Your task to perform on an android device: stop showing notifications on the lock screen Image 0: 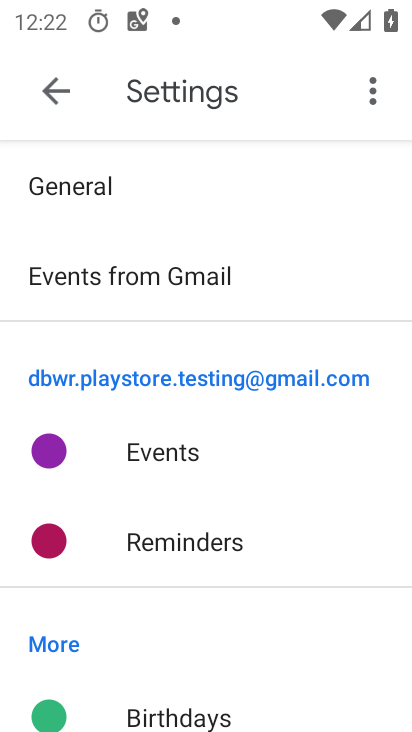
Step 0: press home button
Your task to perform on an android device: stop showing notifications on the lock screen Image 1: 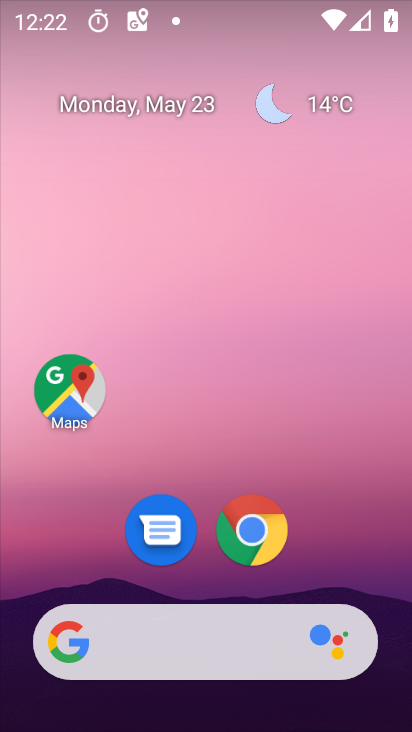
Step 1: drag from (404, 652) to (411, 260)
Your task to perform on an android device: stop showing notifications on the lock screen Image 2: 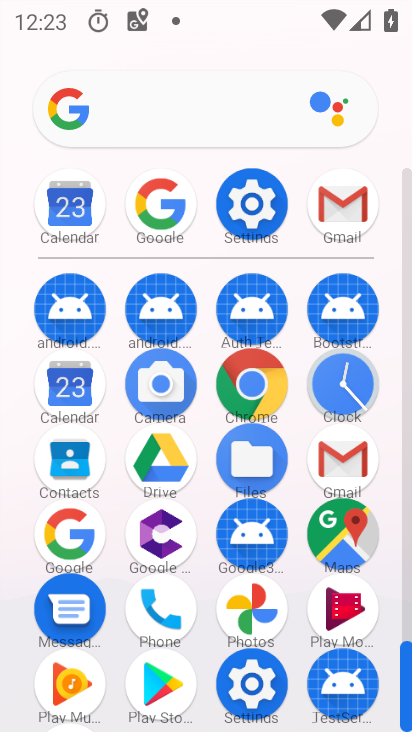
Step 2: click (242, 695)
Your task to perform on an android device: stop showing notifications on the lock screen Image 3: 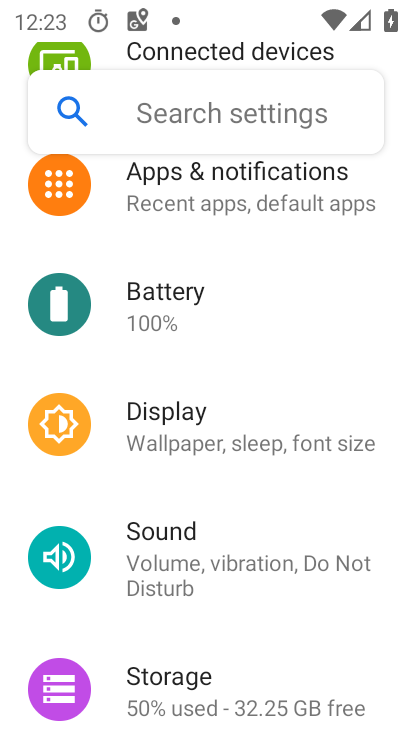
Step 3: drag from (292, 705) to (320, 343)
Your task to perform on an android device: stop showing notifications on the lock screen Image 4: 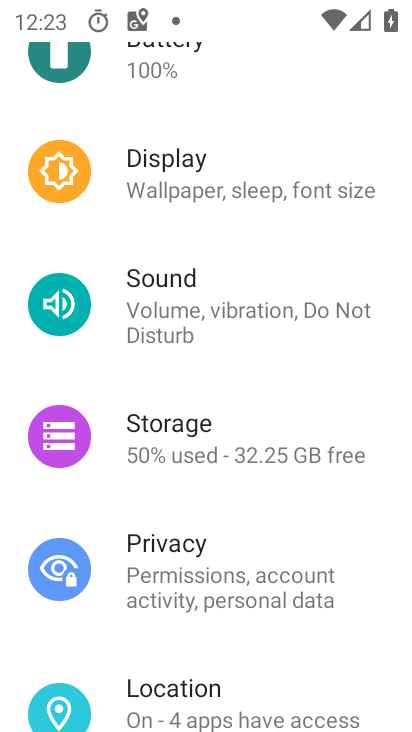
Step 4: drag from (286, 150) to (246, 411)
Your task to perform on an android device: stop showing notifications on the lock screen Image 5: 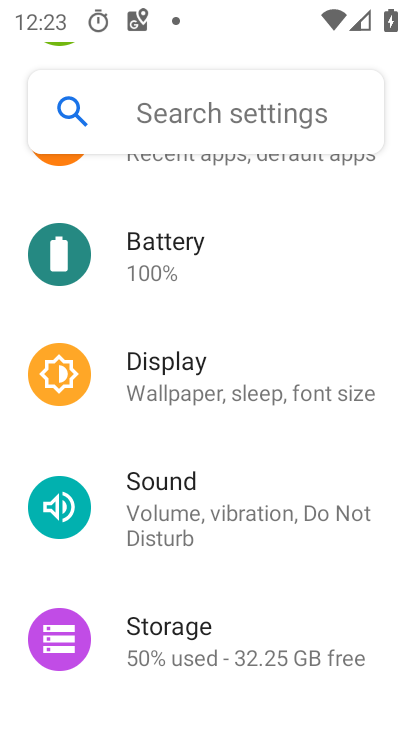
Step 5: drag from (273, 252) to (255, 509)
Your task to perform on an android device: stop showing notifications on the lock screen Image 6: 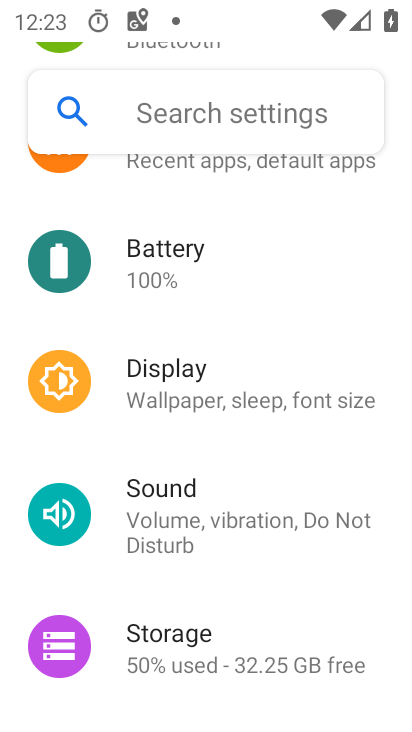
Step 6: drag from (241, 214) to (217, 488)
Your task to perform on an android device: stop showing notifications on the lock screen Image 7: 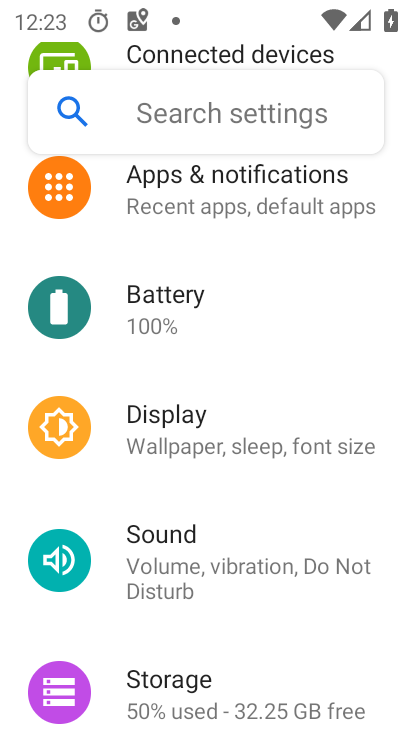
Step 7: click (213, 191)
Your task to perform on an android device: stop showing notifications on the lock screen Image 8: 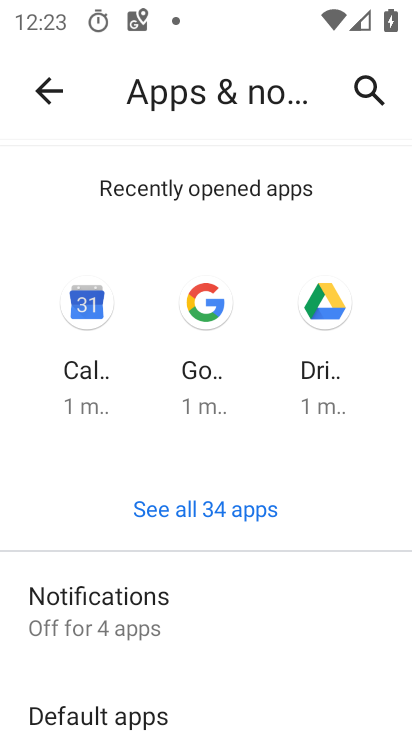
Step 8: drag from (244, 644) to (248, 371)
Your task to perform on an android device: stop showing notifications on the lock screen Image 9: 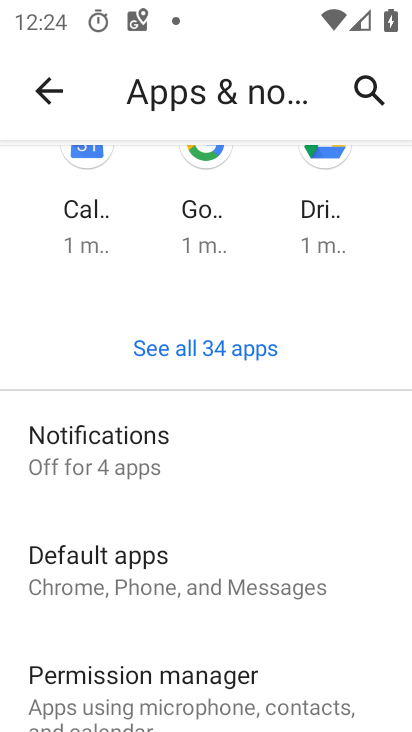
Step 9: drag from (376, 686) to (353, 491)
Your task to perform on an android device: stop showing notifications on the lock screen Image 10: 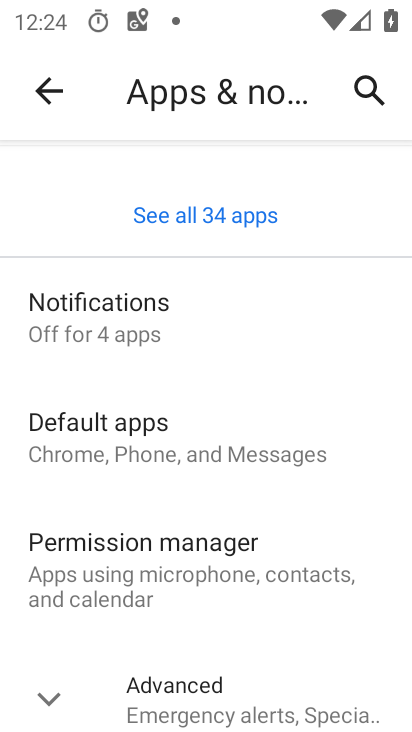
Step 10: drag from (353, 678) to (350, 426)
Your task to perform on an android device: stop showing notifications on the lock screen Image 11: 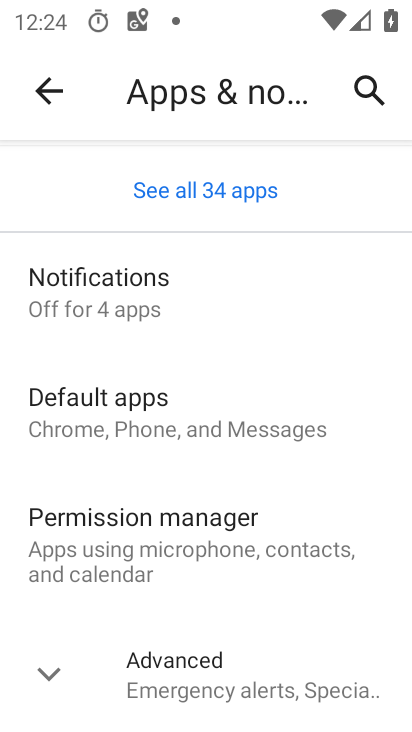
Step 11: drag from (353, 623) to (347, 399)
Your task to perform on an android device: stop showing notifications on the lock screen Image 12: 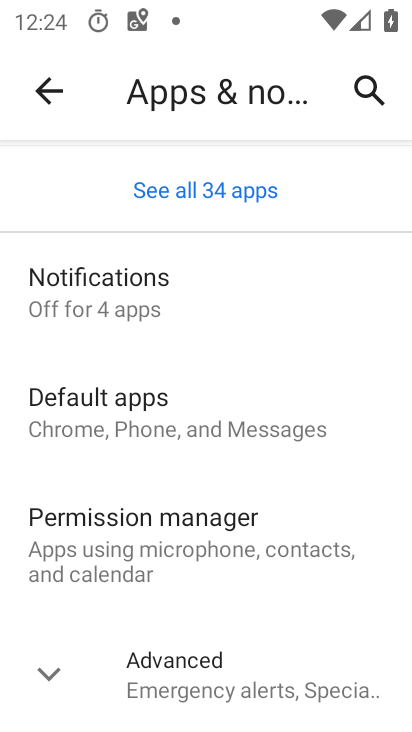
Step 12: click (104, 288)
Your task to perform on an android device: stop showing notifications on the lock screen Image 13: 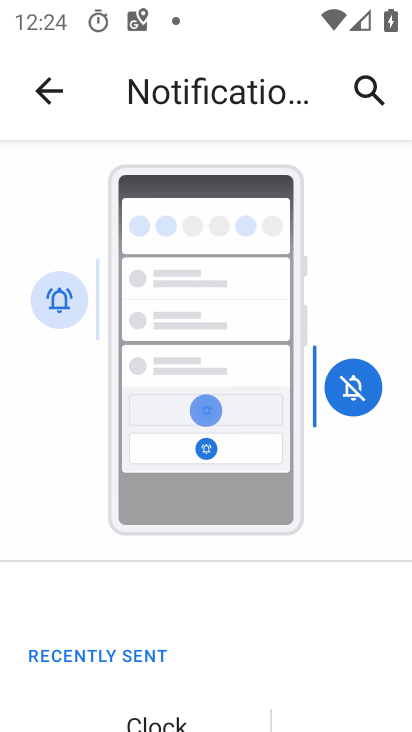
Step 13: drag from (252, 688) to (271, 337)
Your task to perform on an android device: stop showing notifications on the lock screen Image 14: 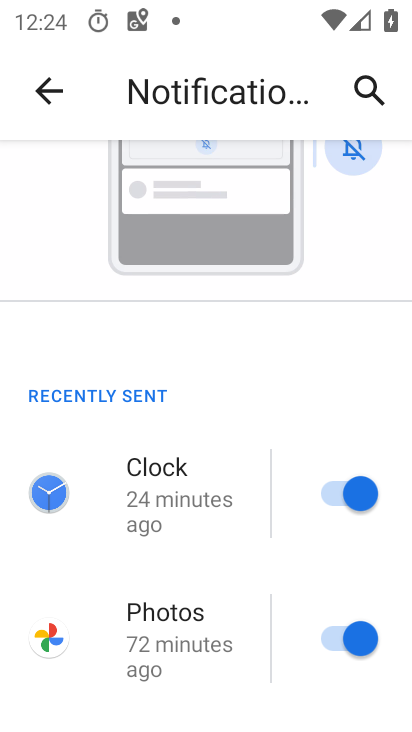
Step 14: drag from (261, 708) to (249, 359)
Your task to perform on an android device: stop showing notifications on the lock screen Image 15: 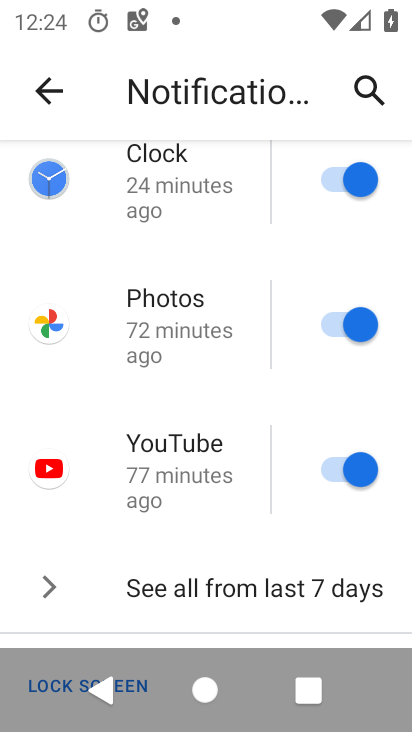
Step 15: drag from (249, 616) to (258, 344)
Your task to perform on an android device: stop showing notifications on the lock screen Image 16: 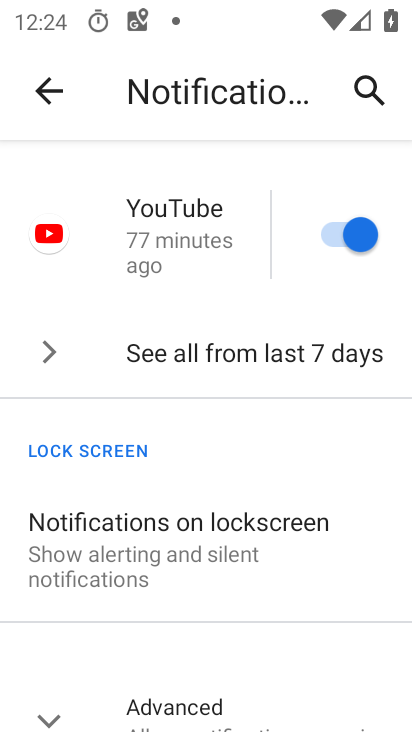
Step 16: click (83, 537)
Your task to perform on an android device: stop showing notifications on the lock screen Image 17: 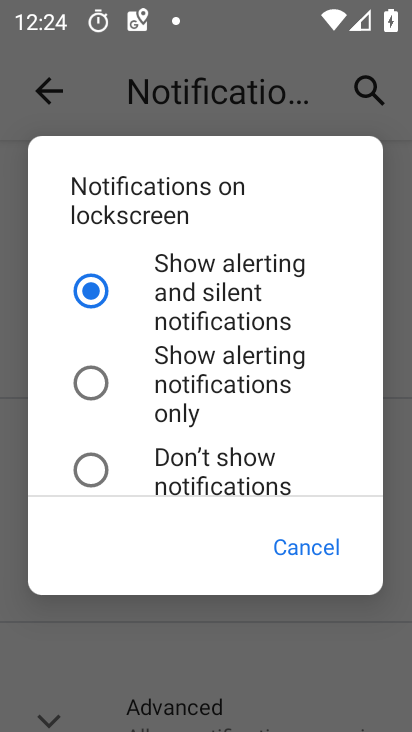
Step 17: click (75, 469)
Your task to perform on an android device: stop showing notifications on the lock screen Image 18: 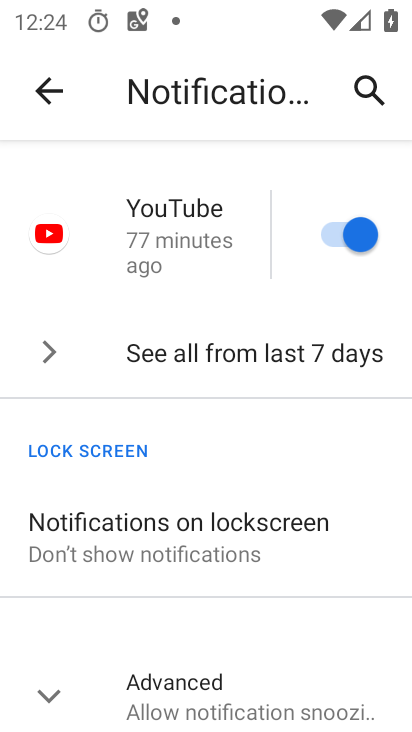
Step 18: task complete